Your task to perform on an android device: Is it going to rain tomorrow? Image 0: 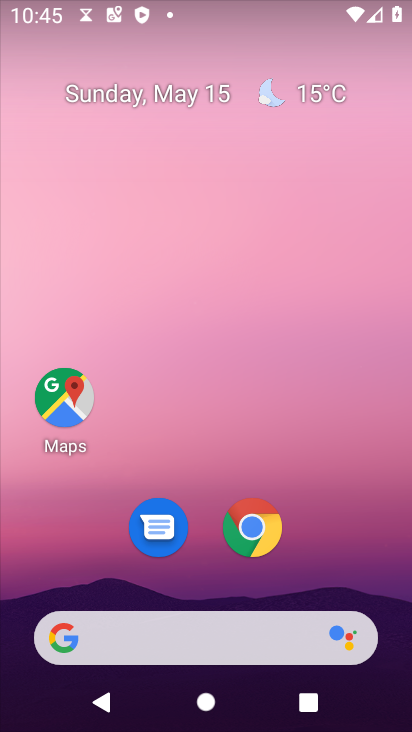
Step 0: drag from (329, 560) to (222, 227)
Your task to perform on an android device: Is it going to rain tomorrow? Image 1: 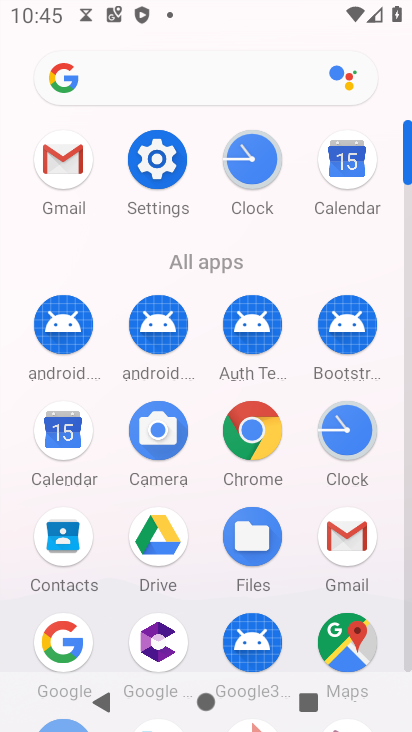
Step 1: drag from (200, 411) to (221, 212)
Your task to perform on an android device: Is it going to rain tomorrow? Image 2: 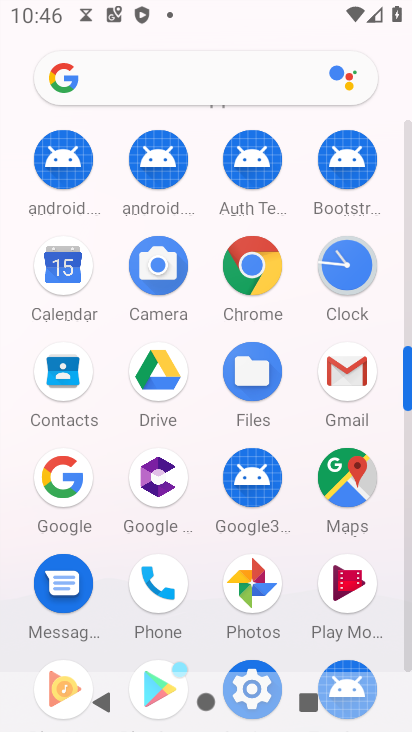
Step 2: click (57, 473)
Your task to perform on an android device: Is it going to rain tomorrow? Image 3: 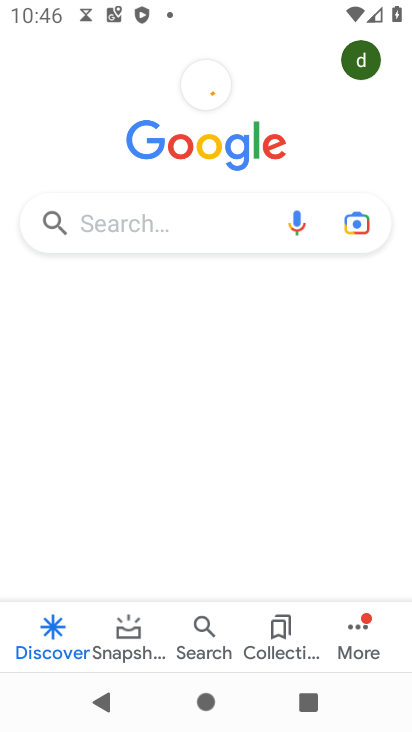
Step 3: click (164, 231)
Your task to perform on an android device: Is it going to rain tomorrow? Image 4: 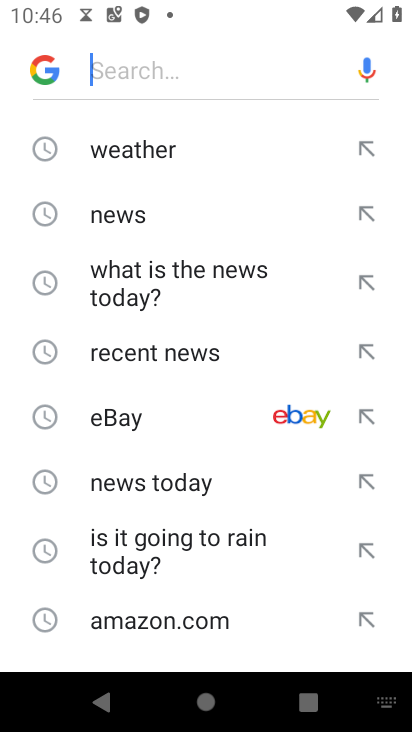
Step 4: type "Is it going to rain tomorrow"
Your task to perform on an android device: Is it going to rain tomorrow? Image 5: 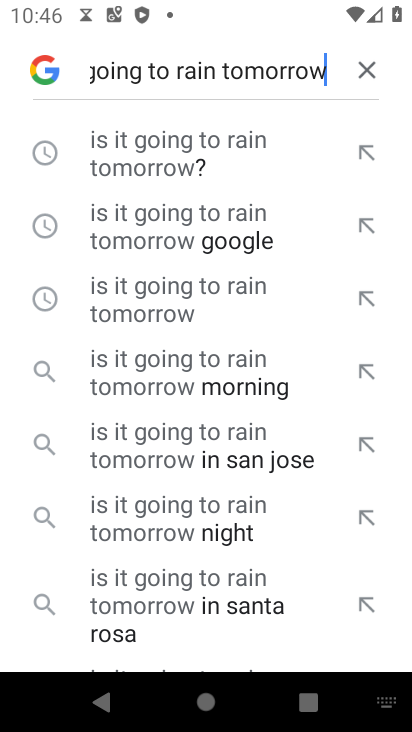
Step 5: click (168, 175)
Your task to perform on an android device: Is it going to rain tomorrow? Image 6: 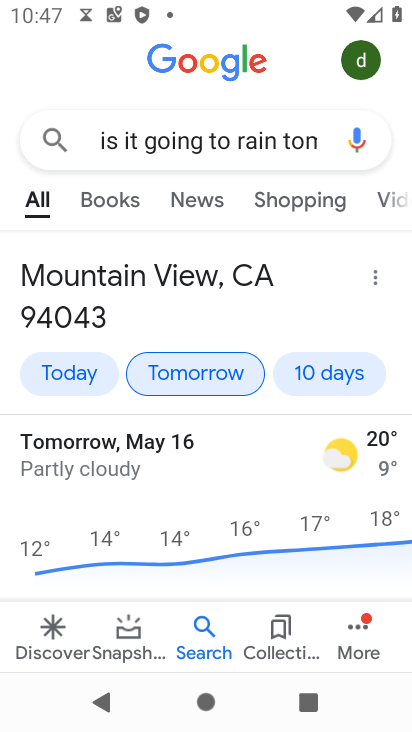
Step 6: task complete